Your task to perform on an android device: What's the weather going to be tomorrow? Image 0: 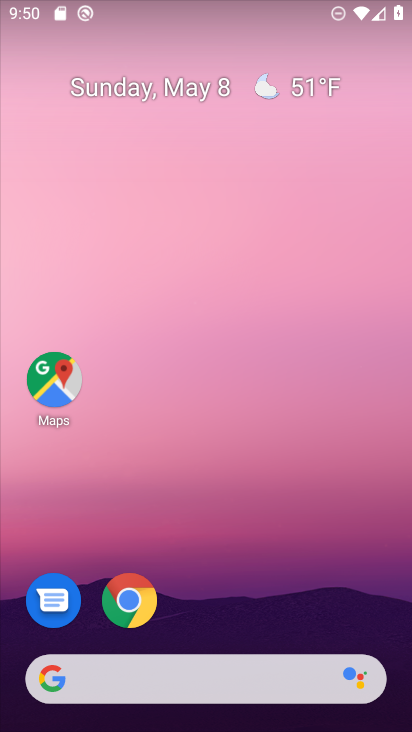
Step 0: click (319, 84)
Your task to perform on an android device: What's the weather going to be tomorrow? Image 1: 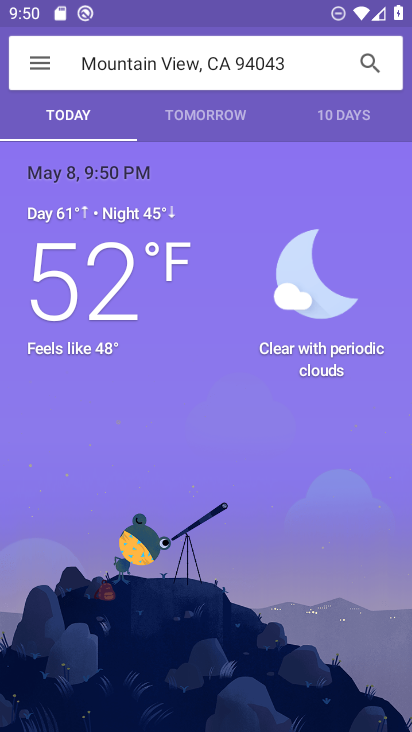
Step 1: click (218, 124)
Your task to perform on an android device: What's the weather going to be tomorrow? Image 2: 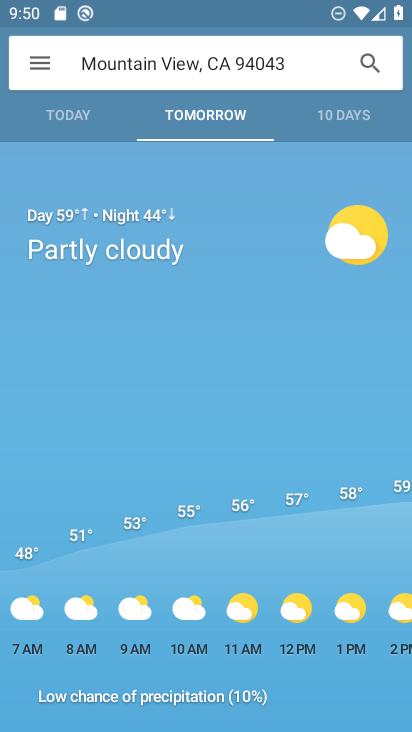
Step 2: task complete